Your task to perform on an android device: Open sound settings Image 0: 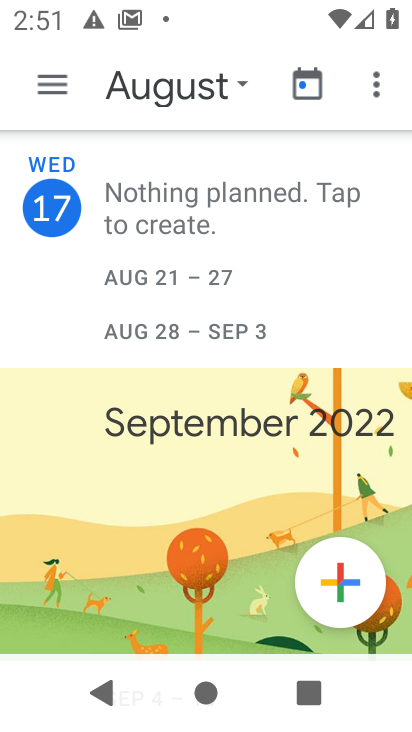
Step 0: drag from (150, 531) to (169, 349)
Your task to perform on an android device: Open sound settings Image 1: 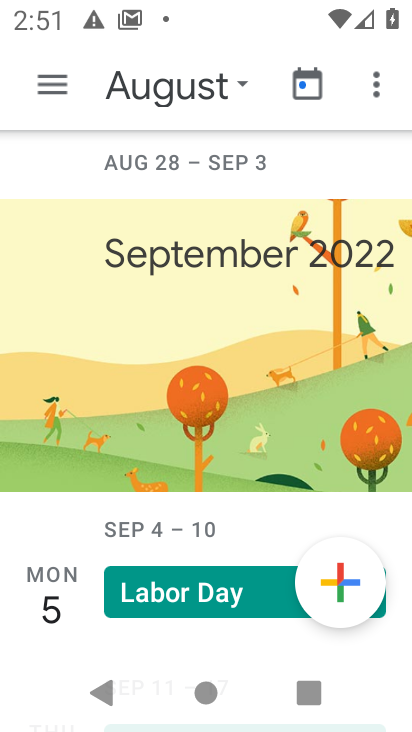
Step 1: press home button
Your task to perform on an android device: Open sound settings Image 2: 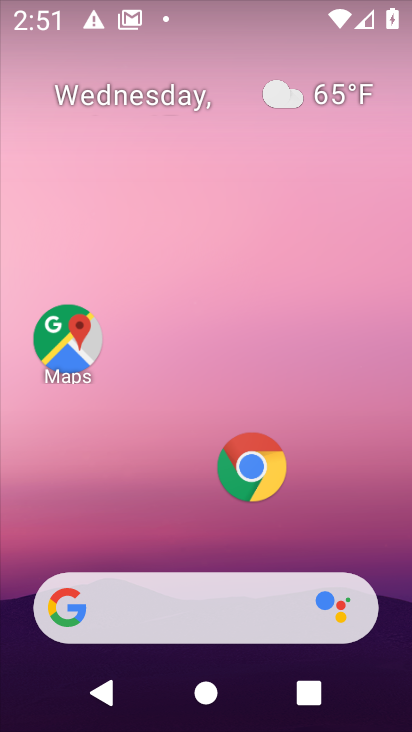
Step 2: drag from (170, 477) to (197, 172)
Your task to perform on an android device: Open sound settings Image 3: 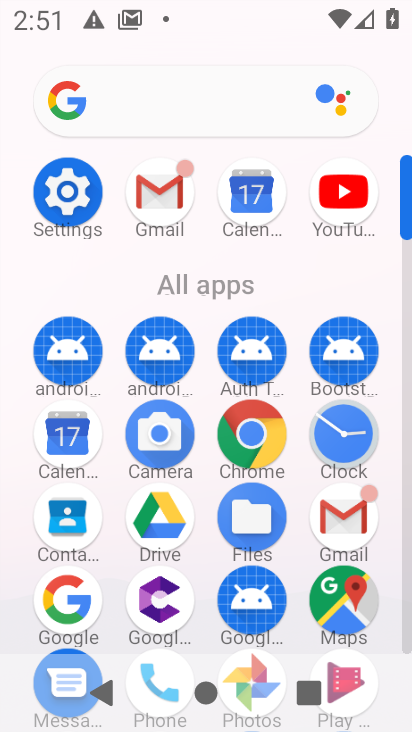
Step 3: drag from (201, 561) to (243, 239)
Your task to perform on an android device: Open sound settings Image 4: 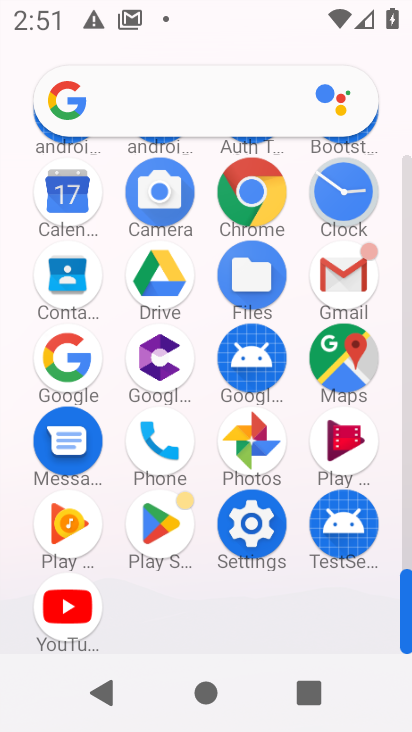
Step 4: click (255, 542)
Your task to perform on an android device: Open sound settings Image 5: 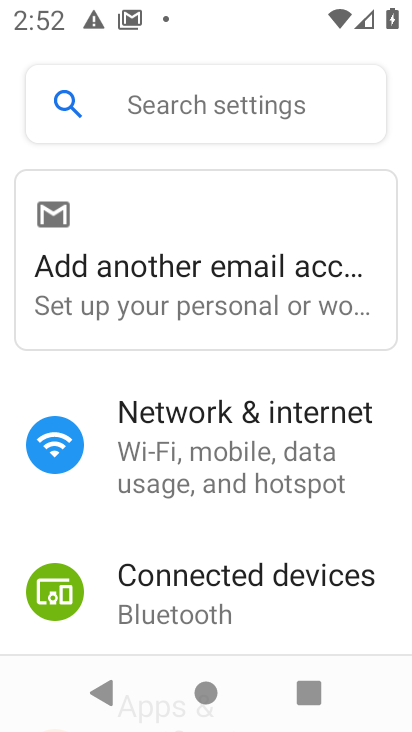
Step 5: task complete